Your task to perform on an android device: show emergency info Image 0: 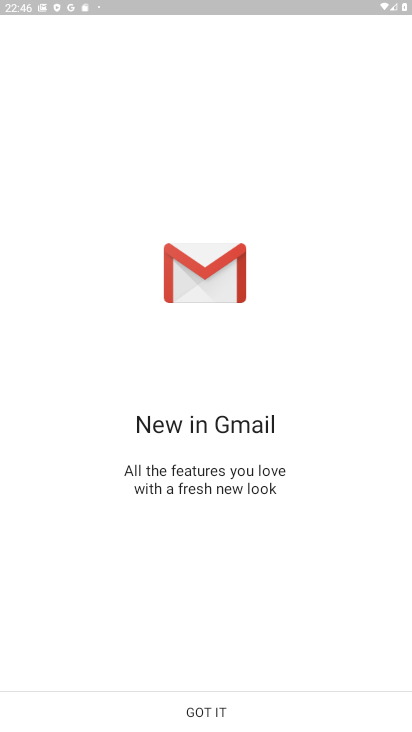
Step 0: press home button
Your task to perform on an android device: show emergency info Image 1: 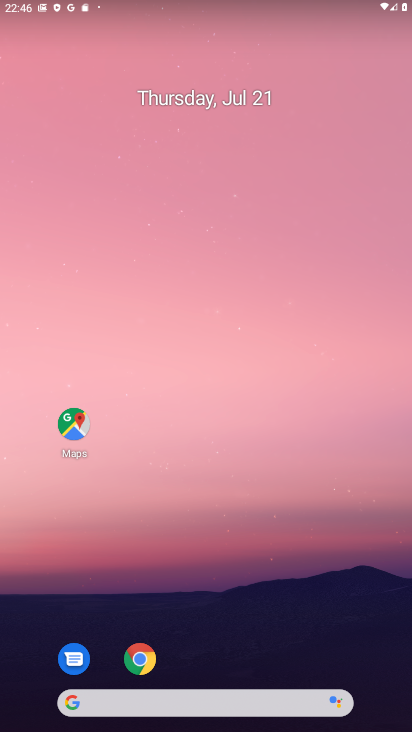
Step 1: drag from (184, 705) to (216, 148)
Your task to perform on an android device: show emergency info Image 2: 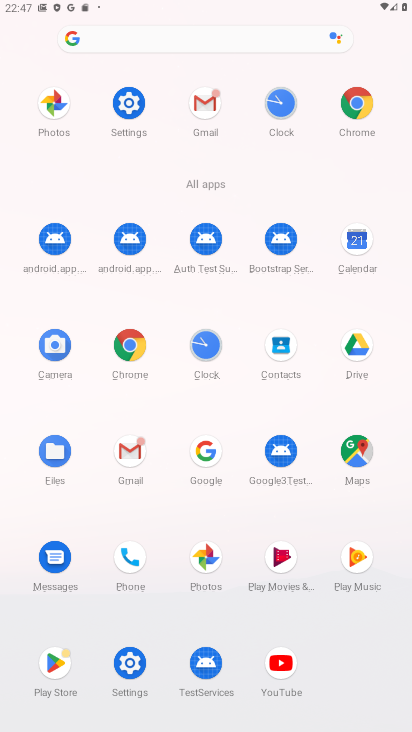
Step 2: click (127, 101)
Your task to perform on an android device: show emergency info Image 3: 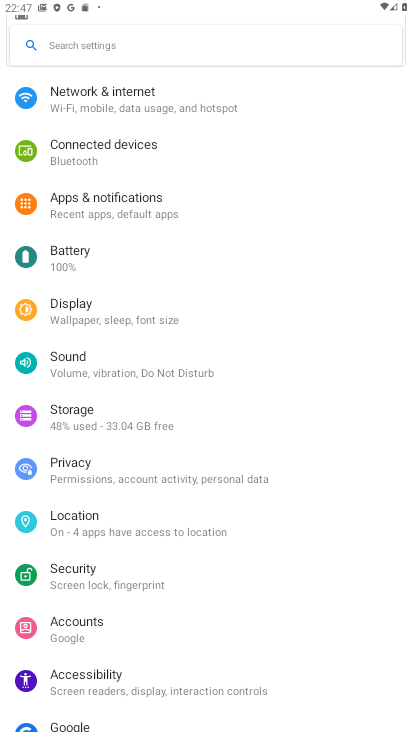
Step 3: drag from (144, 617) to (165, 359)
Your task to perform on an android device: show emergency info Image 4: 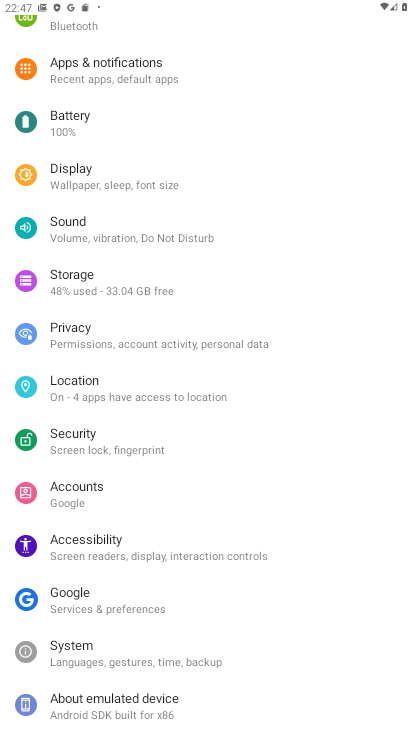
Step 4: click (91, 700)
Your task to perform on an android device: show emergency info Image 5: 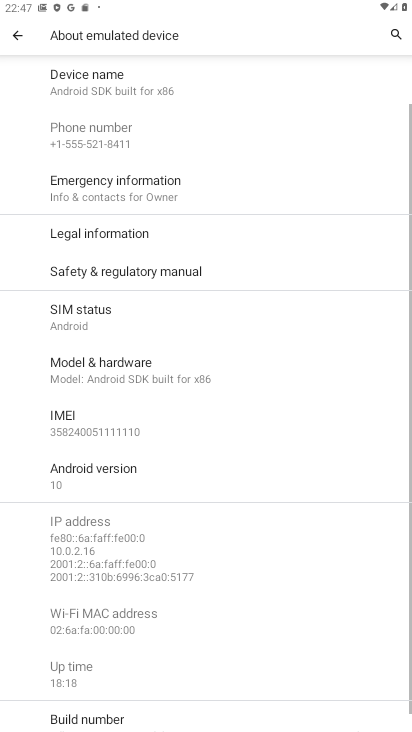
Step 5: click (138, 195)
Your task to perform on an android device: show emergency info Image 6: 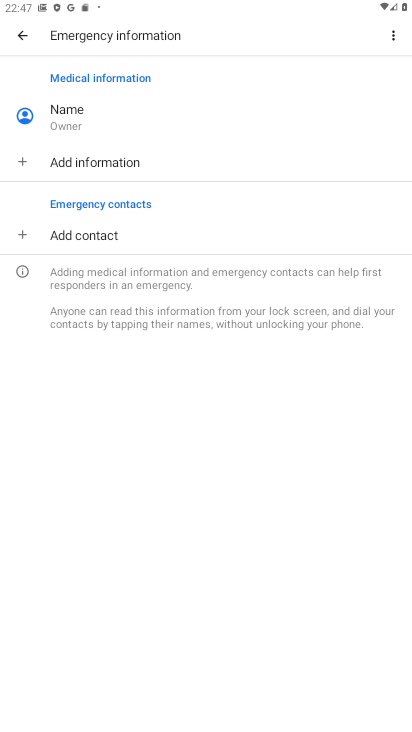
Step 6: task complete